Your task to perform on an android device: turn on showing notifications on the lock screen Image 0: 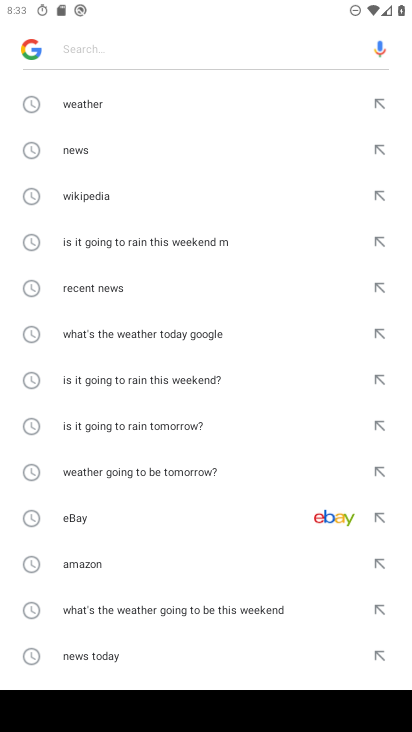
Step 0: press home button
Your task to perform on an android device: turn on showing notifications on the lock screen Image 1: 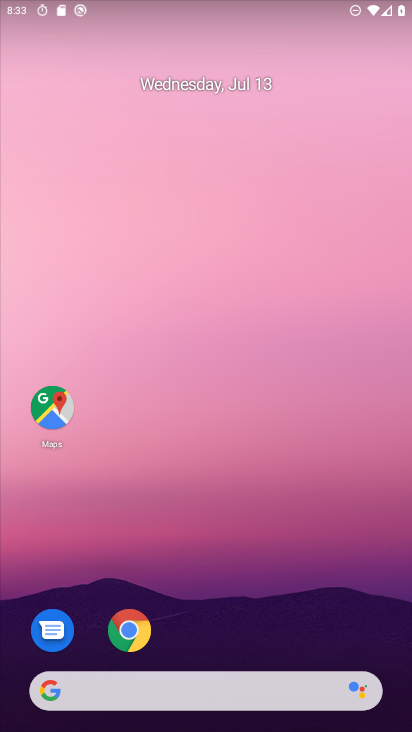
Step 1: drag from (386, 663) to (253, 8)
Your task to perform on an android device: turn on showing notifications on the lock screen Image 2: 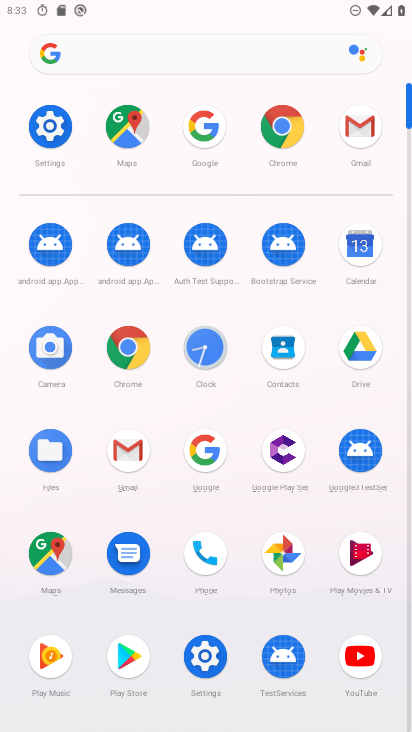
Step 2: click (48, 153)
Your task to perform on an android device: turn on showing notifications on the lock screen Image 3: 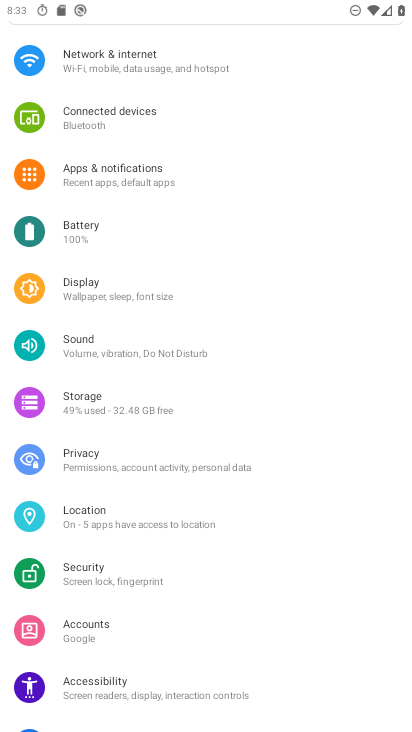
Step 3: click (187, 184)
Your task to perform on an android device: turn on showing notifications on the lock screen Image 4: 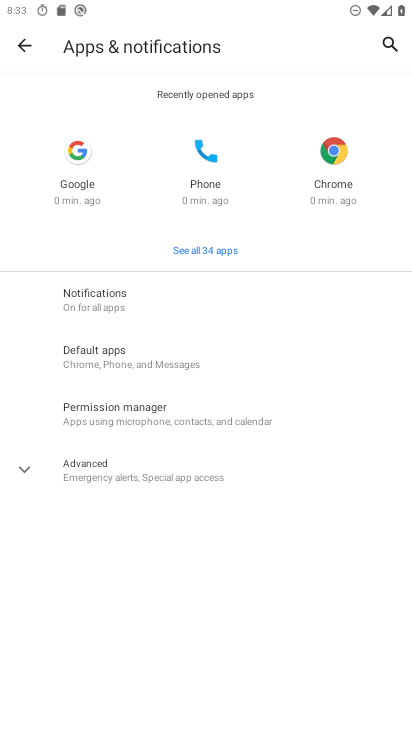
Step 4: click (103, 300)
Your task to perform on an android device: turn on showing notifications on the lock screen Image 5: 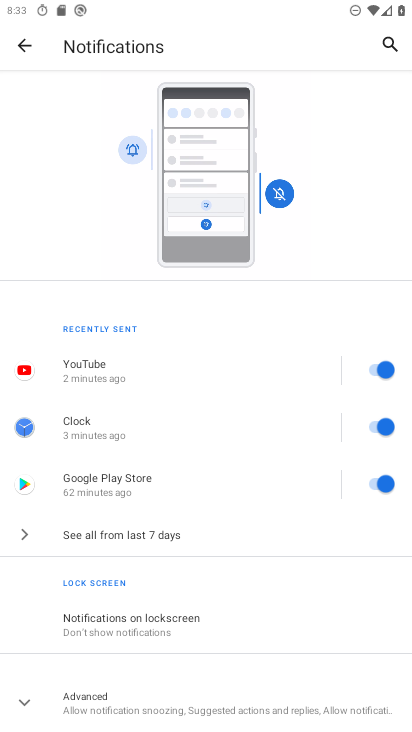
Step 5: click (147, 629)
Your task to perform on an android device: turn on showing notifications on the lock screen Image 6: 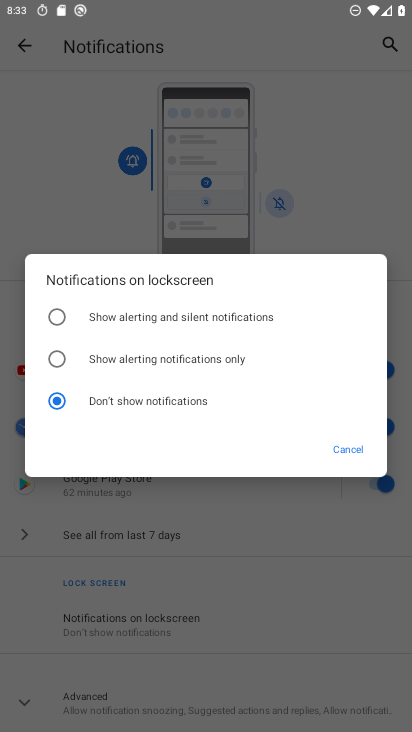
Step 6: click (53, 314)
Your task to perform on an android device: turn on showing notifications on the lock screen Image 7: 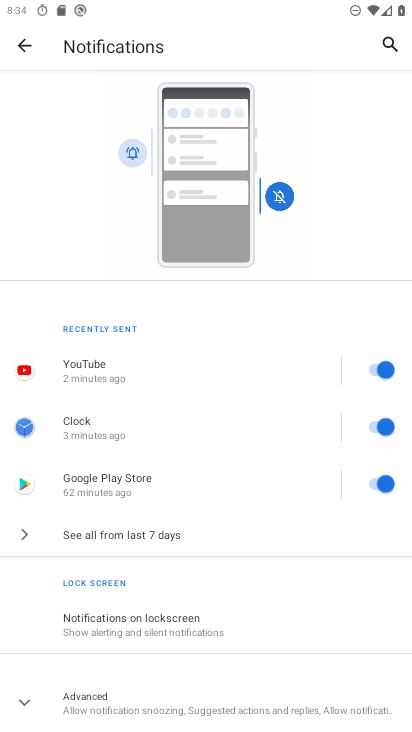
Step 7: task complete